Your task to perform on an android device: Open Chrome and go to settings Image 0: 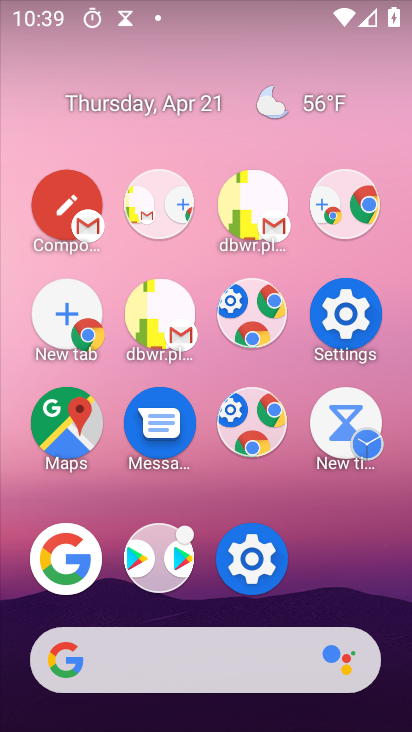
Step 0: click (189, 189)
Your task to perform on an android device: Open Chrome and go to settings Image 1: 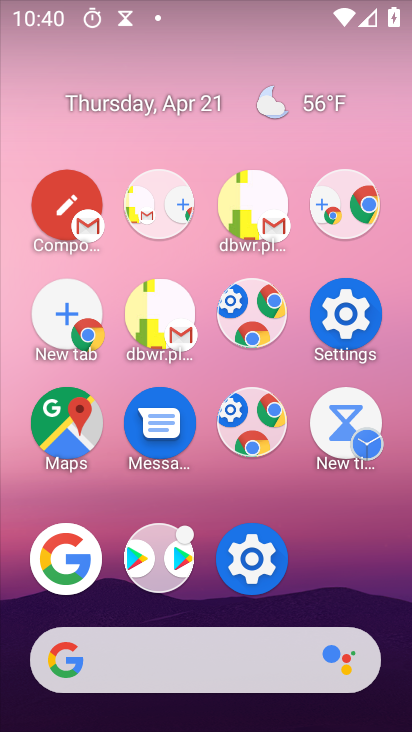
Step 1: click (340, 310)
Your task to perform on an android device: Open Chrome and go to settings Image 2: 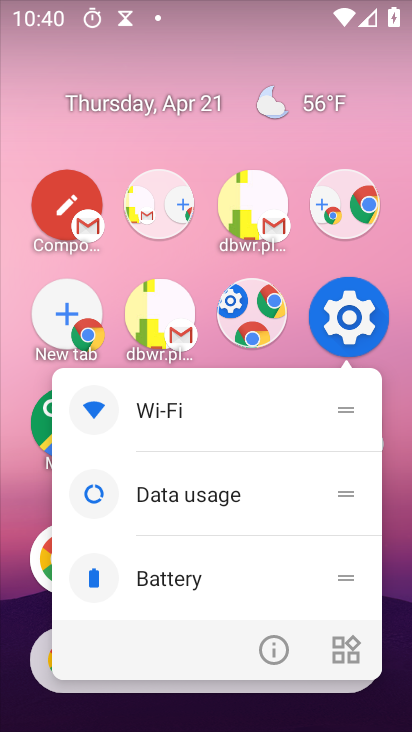
Step 2: click (345, 311)
Your task to perform on an android device: Open Chrome and go to settings Image 3: 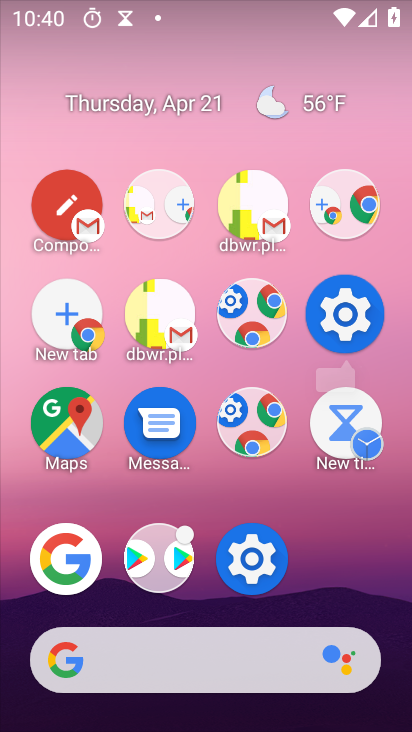
Step 3: click (346, 310)
Your task to perform on an android device: Open Chrome and go to settings Image 4: 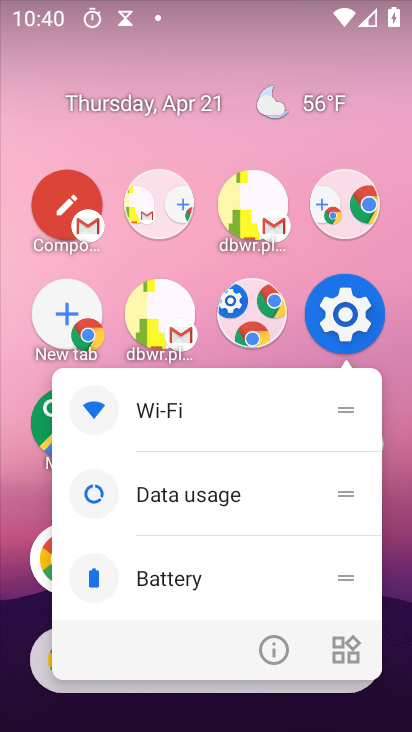
Step 4: click (348, 309)
Your task to perform on an android device: Open Chrome and go to settings Image 5: 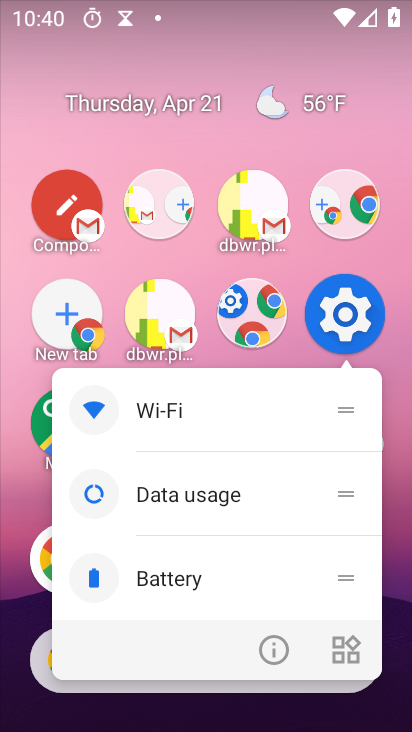
Step 5: click (353, 314)
Your task to perform on an android device: Open Chrome and go to settings Image 6: 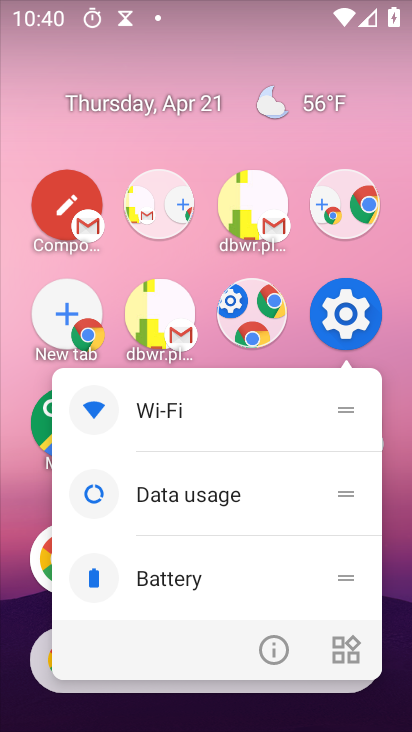
Step 6: click (312, 239)
Your task to perform on an android device: Open Chrome and go to settings Image 7: 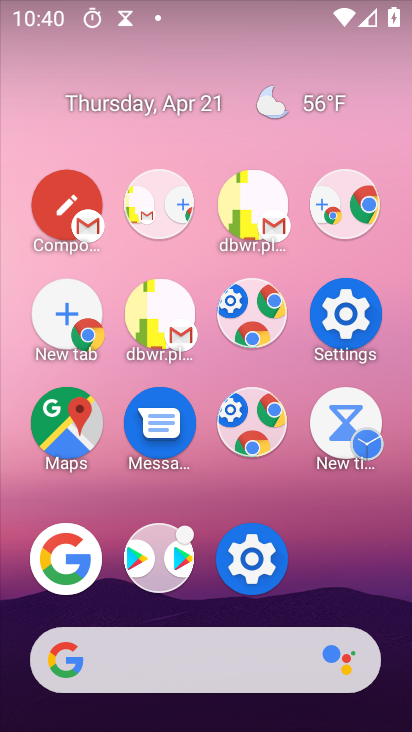
Step 7: click (355, 309)
Your task to perform on an android device: Open Chrome and go to settings Image 8: 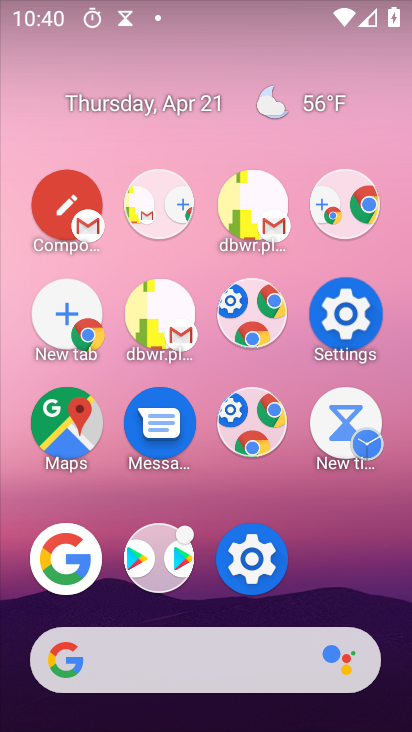
Step 8: click (355, 309)
Your task to perform on an android device: Open Chrome and go to settings Image 9: 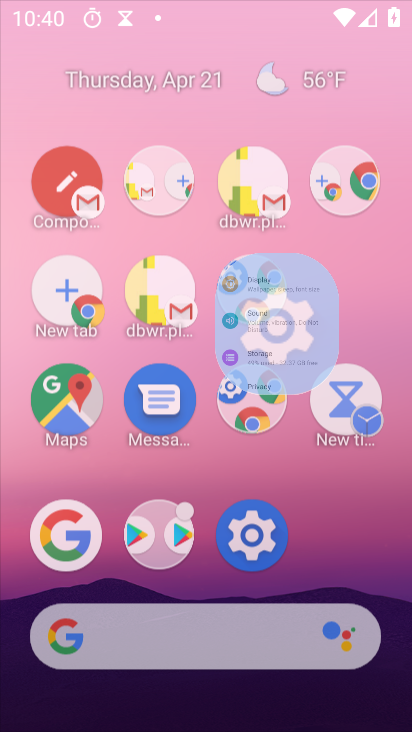
Step 9: click (357, 305)
Your task to perform on an android device: Open Chrome and go to settings Image 10: 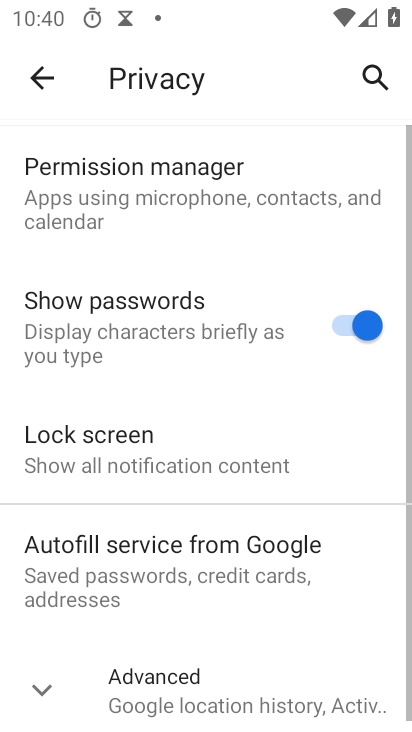
Step 10: press home button
Your task to perform on an android device: Open Chrome and go to settings Image 11: 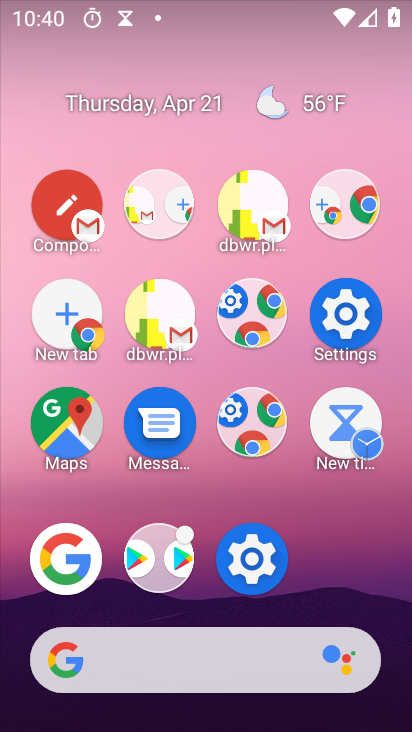
Step 11: drag from (368, 575) to (97, 58)
Your task to perform on an android device: Open Chrome and go to settings Image 12: 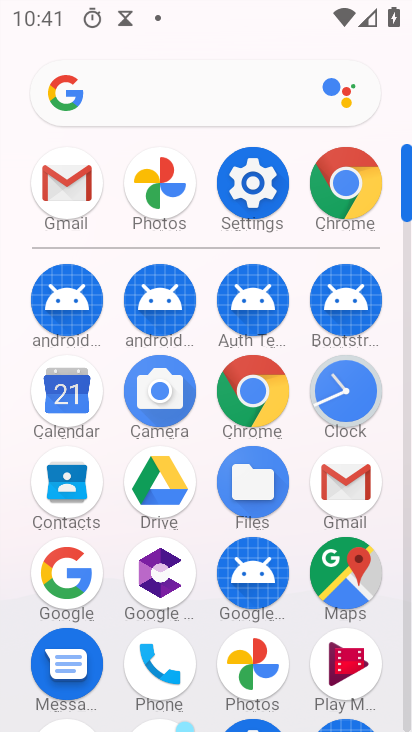
Step 12: click (348, 179)
Your task to perform on an android device: Open Chrome and go to settings Image 13: 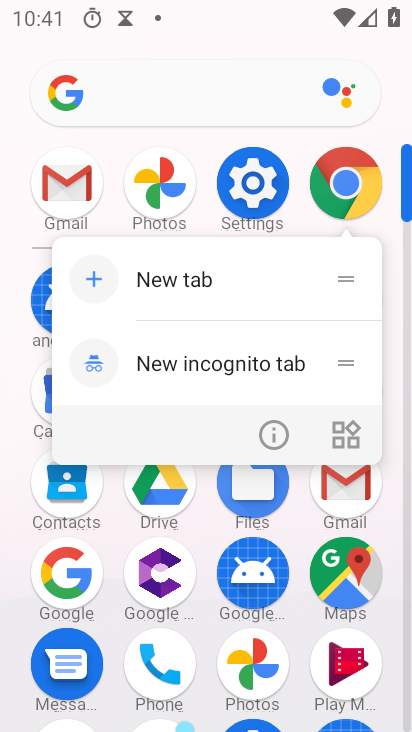
Step 13: click (352, 176)
Your task to perform on an android device: Open Chrome and go to settings Image 14: 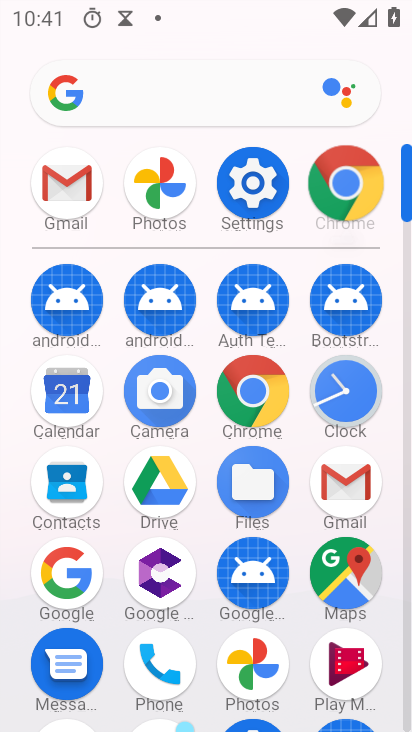
Step 14: click (352, 176)
Your task to perform on an android device: Open Chrome and go to settings Image 15: 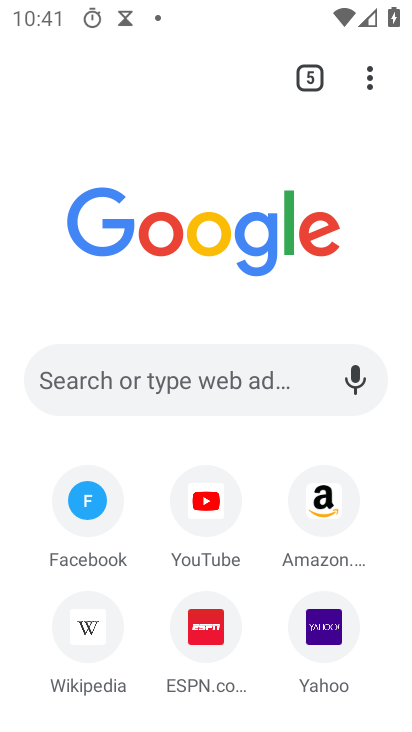
Step 15: task complete